Your task to perform on an android device: open app "The Home Depot" (install if not already installed) and enter user name: "taproot@icloud.com" and password: "executions" Image 0: 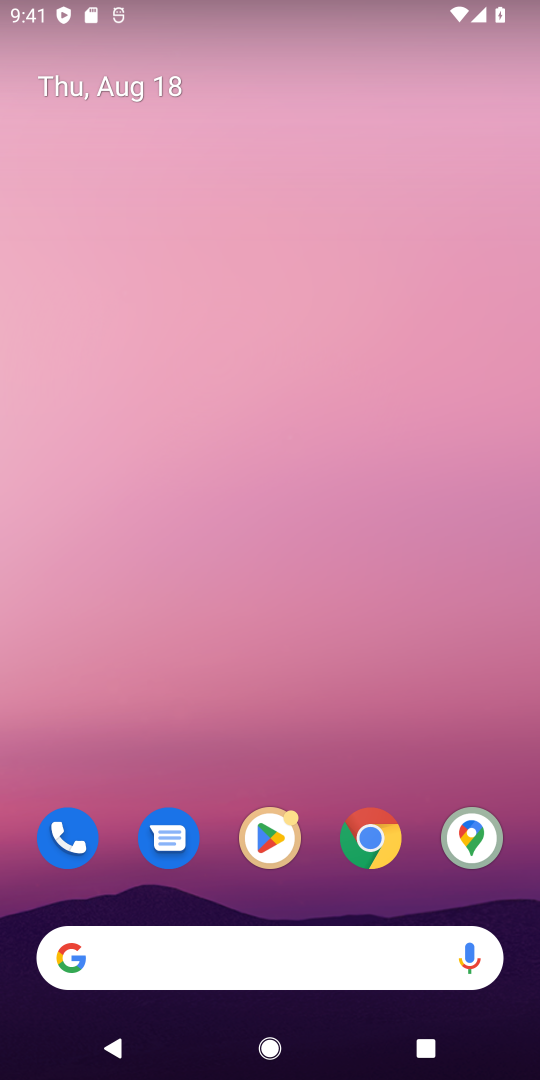
Step 0: click (268, 845)
Your task to perform on an android device: open app "The Home Depot" (install if not already installed) and enter user name: "taproot@icloud.com" and password: "executions" Image 1: 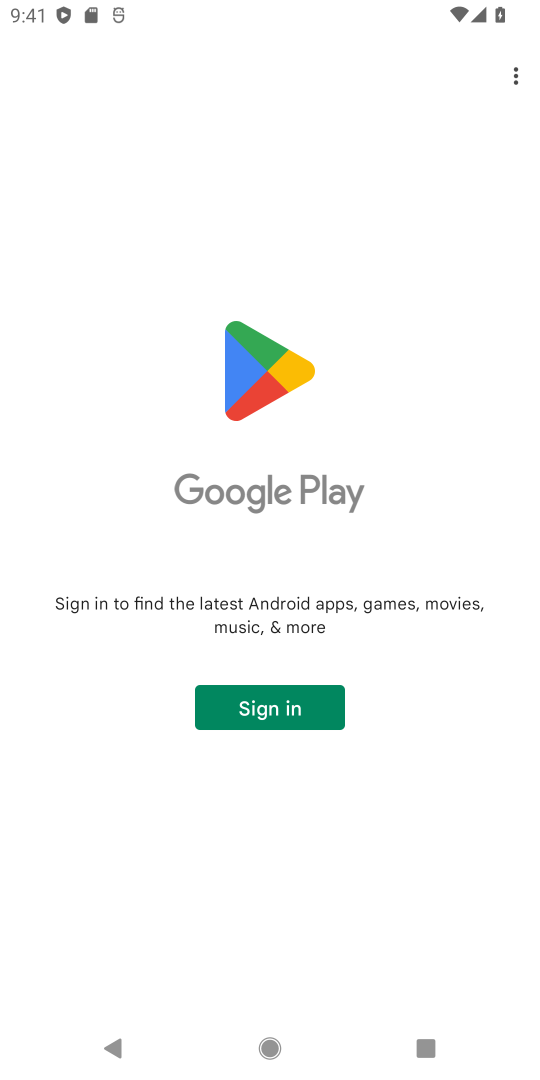
Step 1: click (293, 711)
Your task to perform on an android device: open app "The Home Depot" (install if not already installed) and enter user name: "taproot@icloud.com" and password: "executions" Image 2: 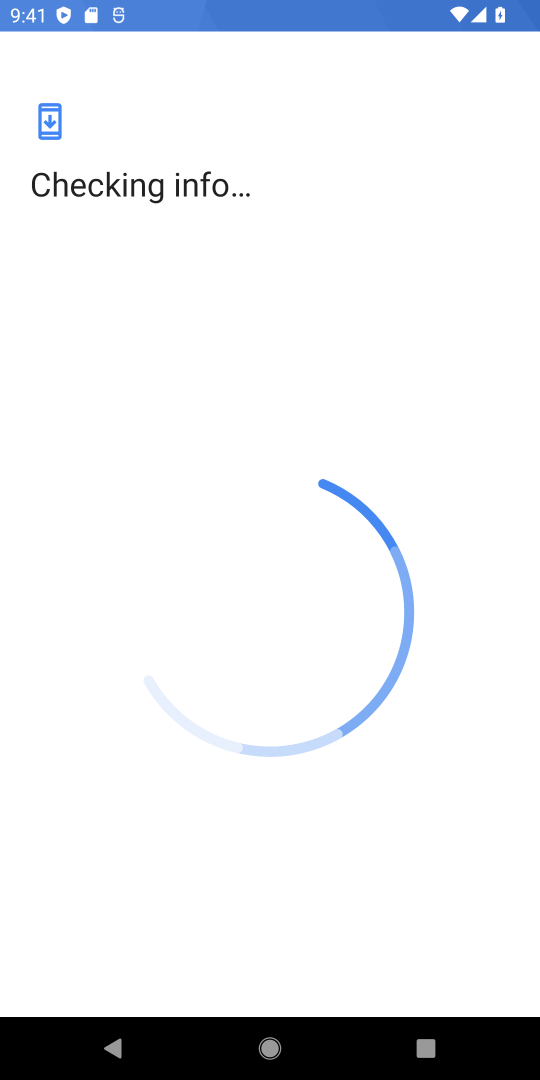
Step 2: task complete